Your task to perform on an android device: Open Chrome and go to the settings page Image 0: 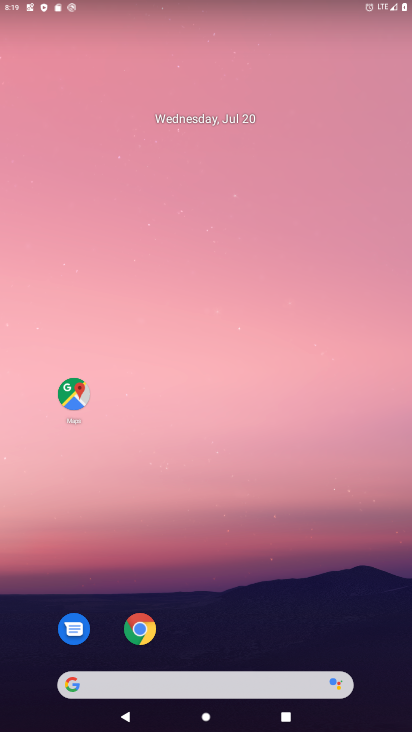
Step 0: click (134, 625)
Your task to perform on an android device: Open Chrome and go to the settings page Image 1: 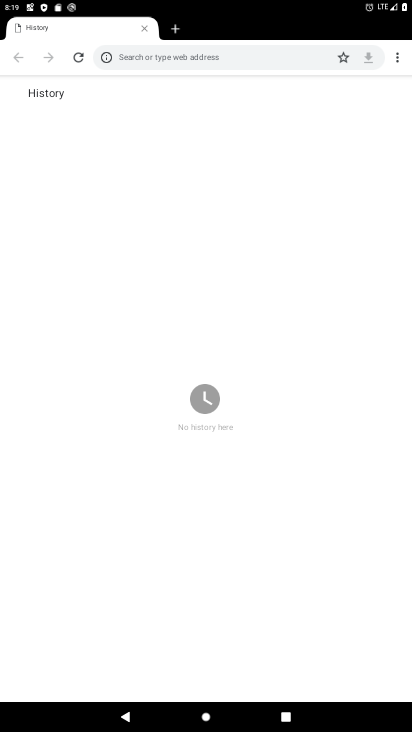
Step 1: click (399, 60)
Your task to perform on an android device: Open Chrome and go to the settings page Image 2: 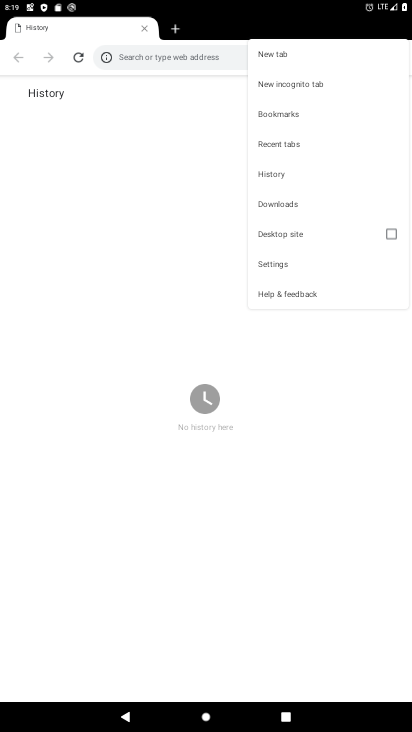
Step 2: click (281, 264)
Your task to perform on an android device: Open Chrome and go to the settings page Image 3: 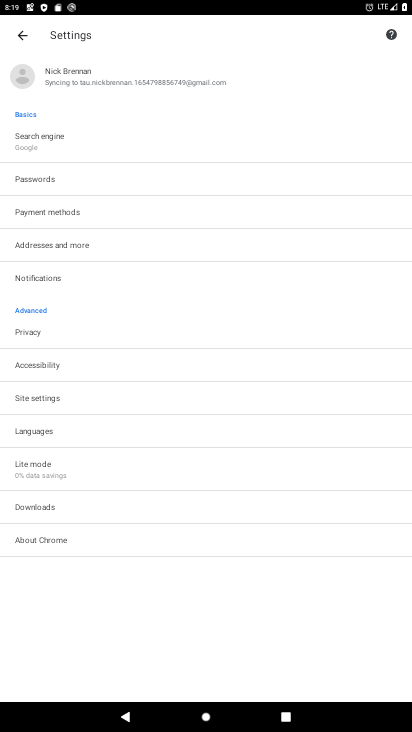
Step 3: task complete